Your task to perform on an android device: Add "duracell triple a" to the cart on newegg.com Image 0: 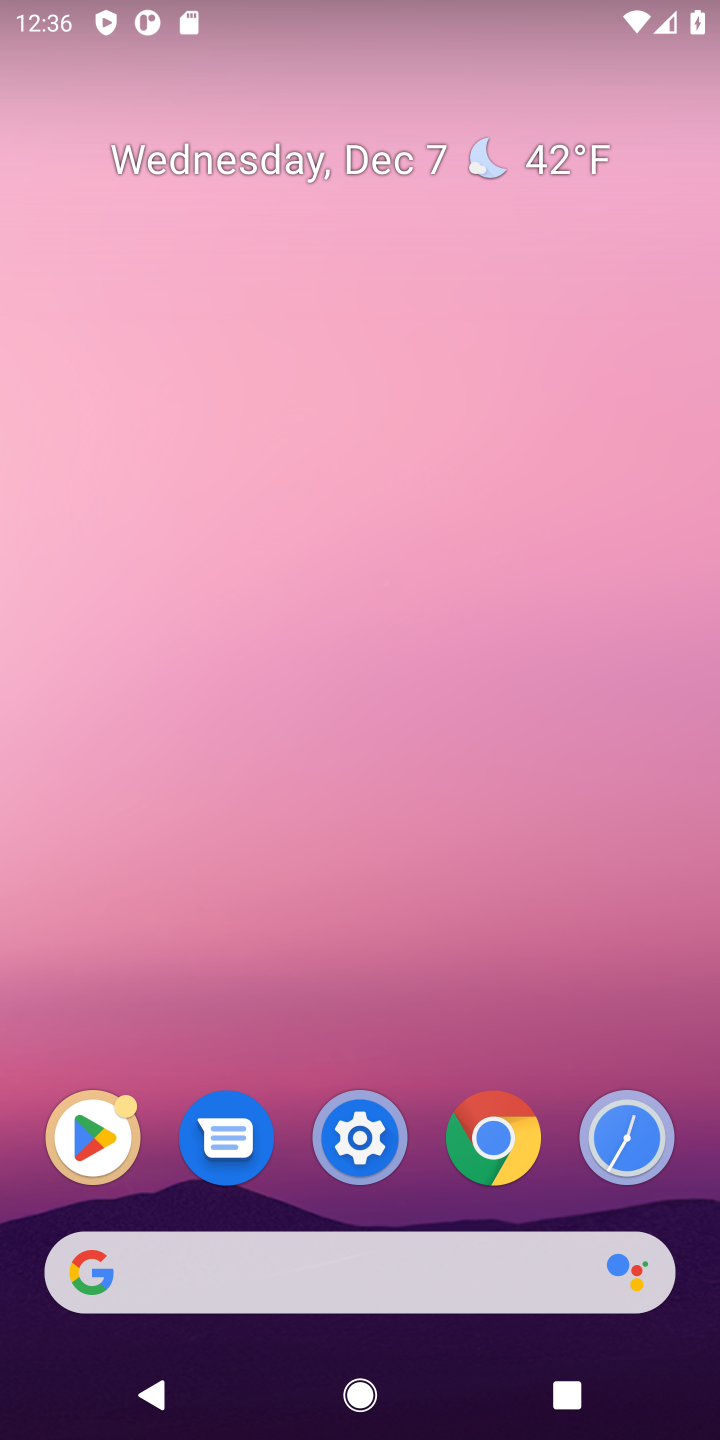
Step 0: click (378, 1265)
Your task to perform on an android device: Add "duracell triple a" to the cart on newegg.com Image 1: 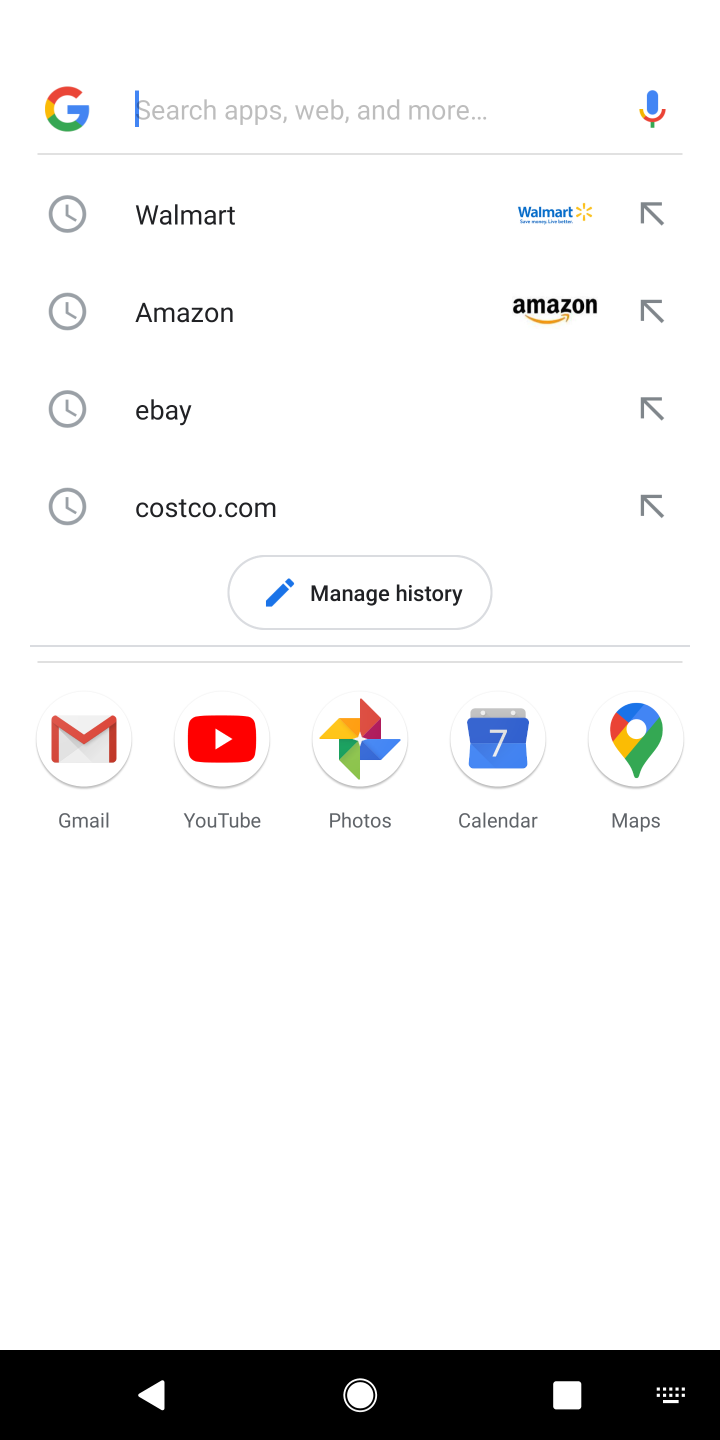
Step 1: type "newegg"
Your task to perform on an android device: Add "duracell triple a" to the cart on newegg.com Image 2: 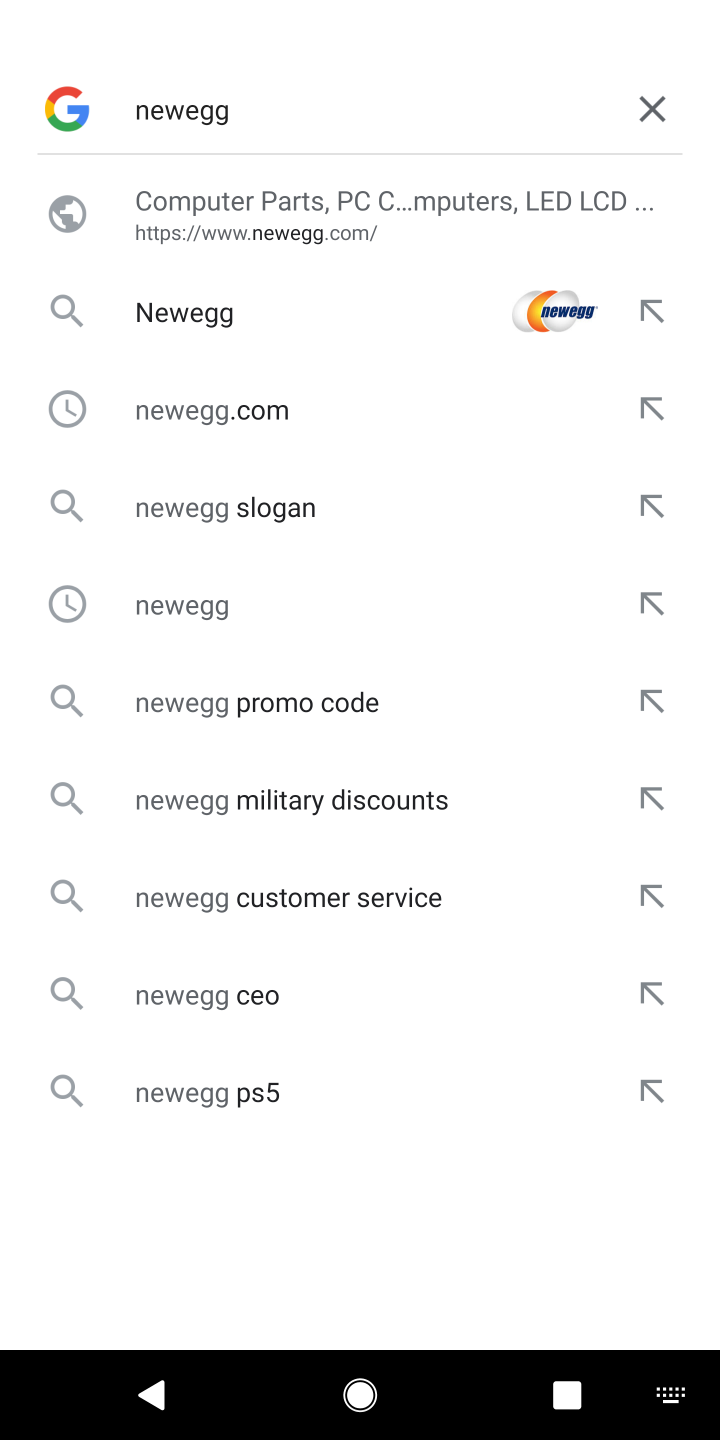
Step 2: click (250, 266)
Your task to perform on an android device: Add "duracell triple a" to the cart on newegg.com Image 3: 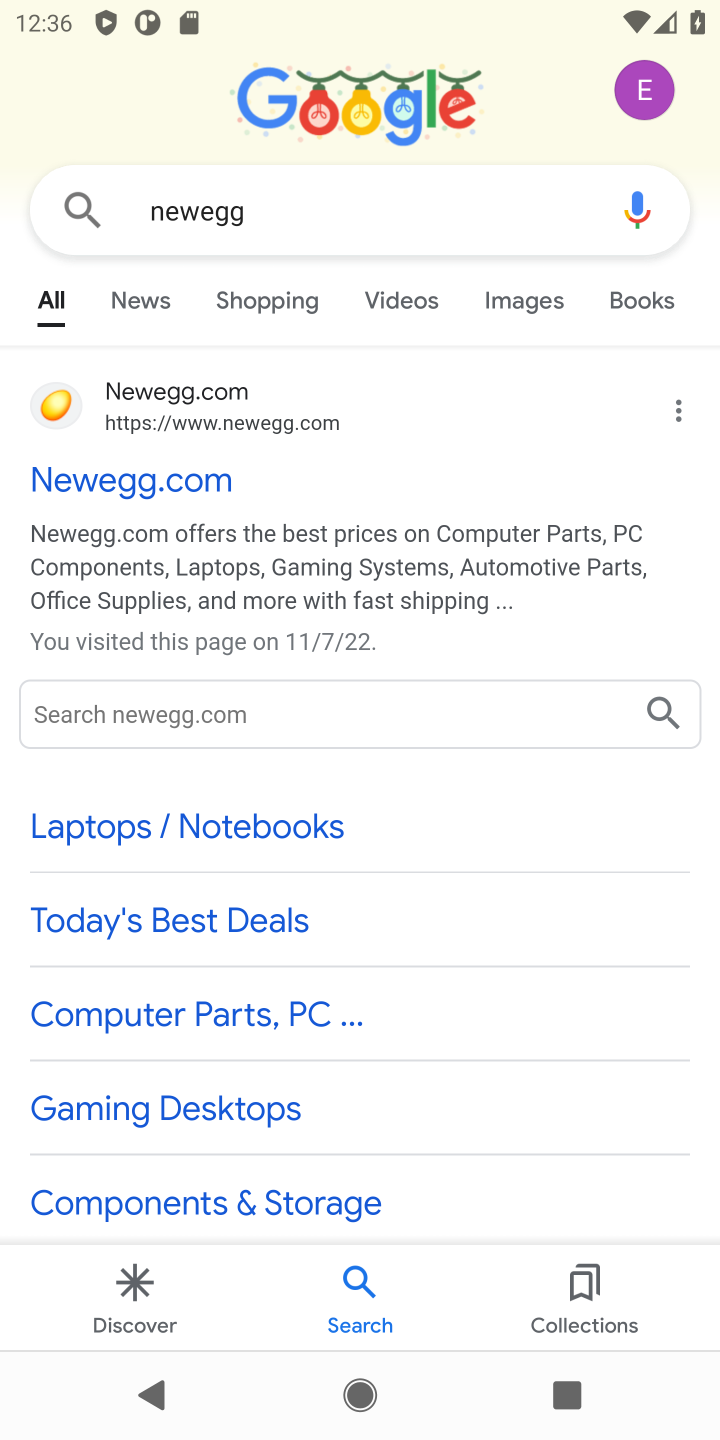
Step 3: click (141, 499)
Your task to perform on an android device: Add "duracell triple a" to the cart on newegg.com Image 4: 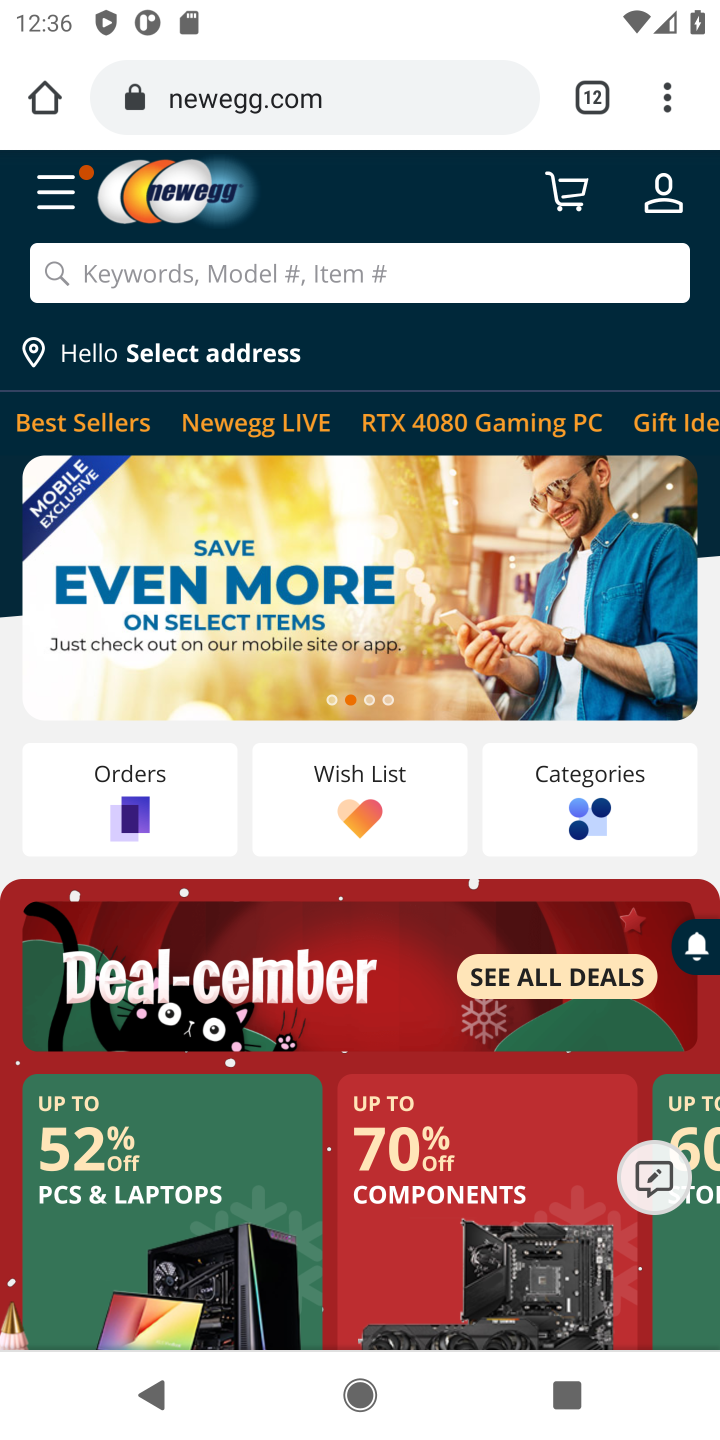
Step 4: click (197, 276)
Your task to perform on an android device: Add "duracell triple a" to the cart on newegg.com Image 5: 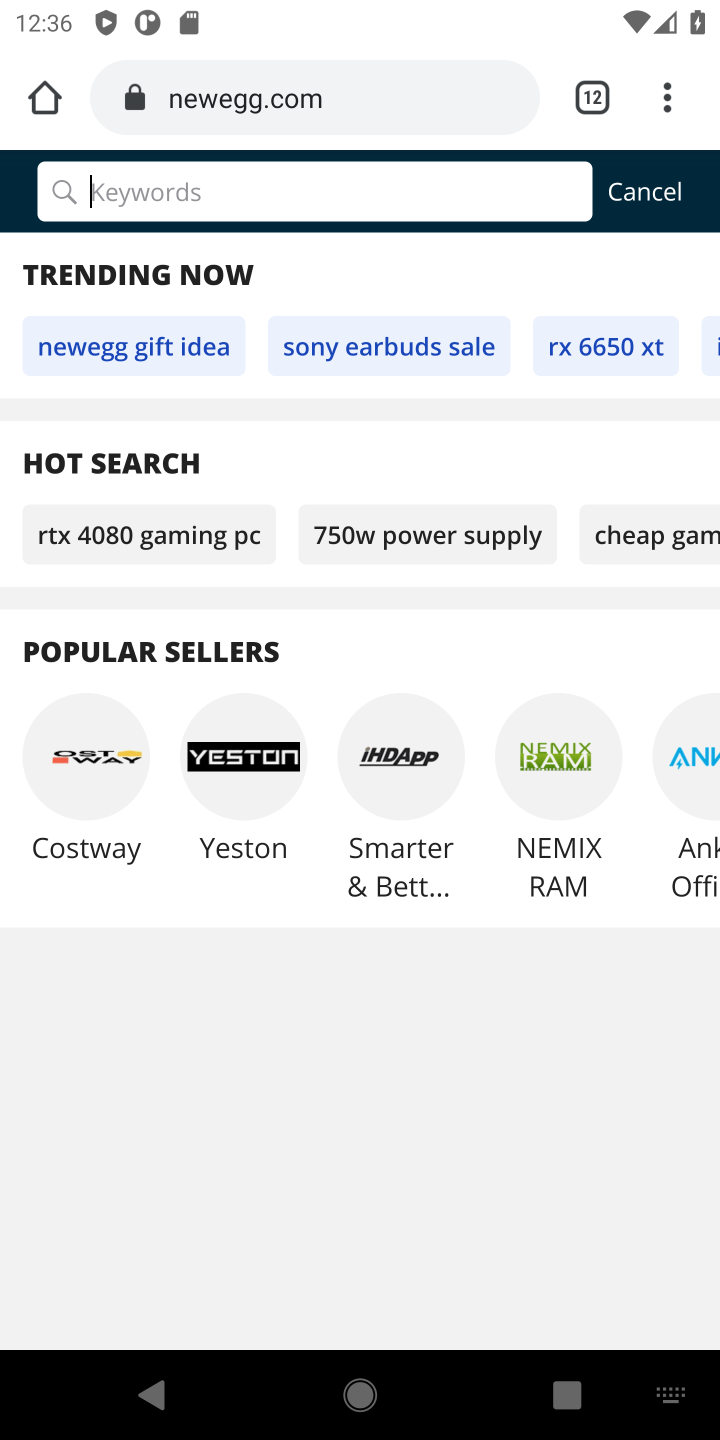
Step 5: type "duracell"
Your task to perform on an android device: Add "duracell triple a" to the cart on newegg.com Image 6: 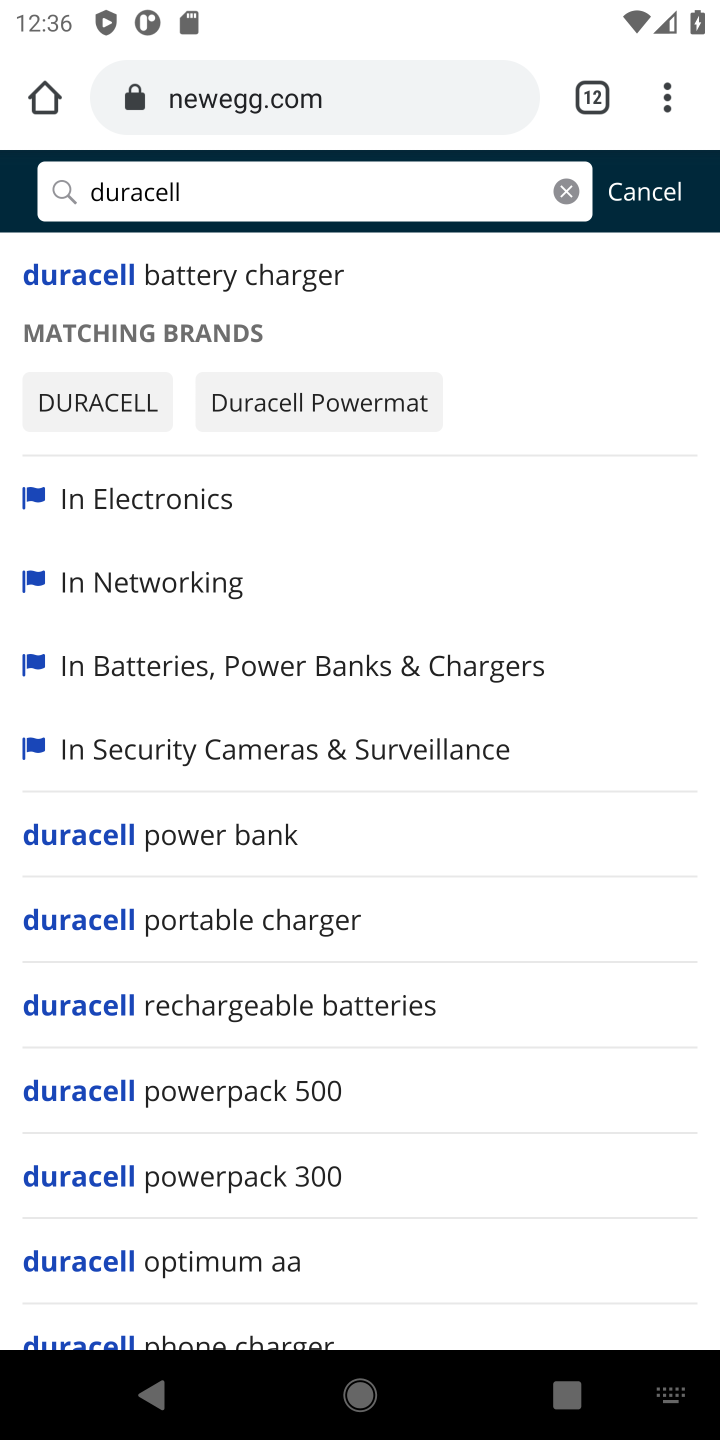
Step 6: click (305, 284)
Your task to perform on an android device: Add "duracell triple a" to the cart on newegg.com Image 7: 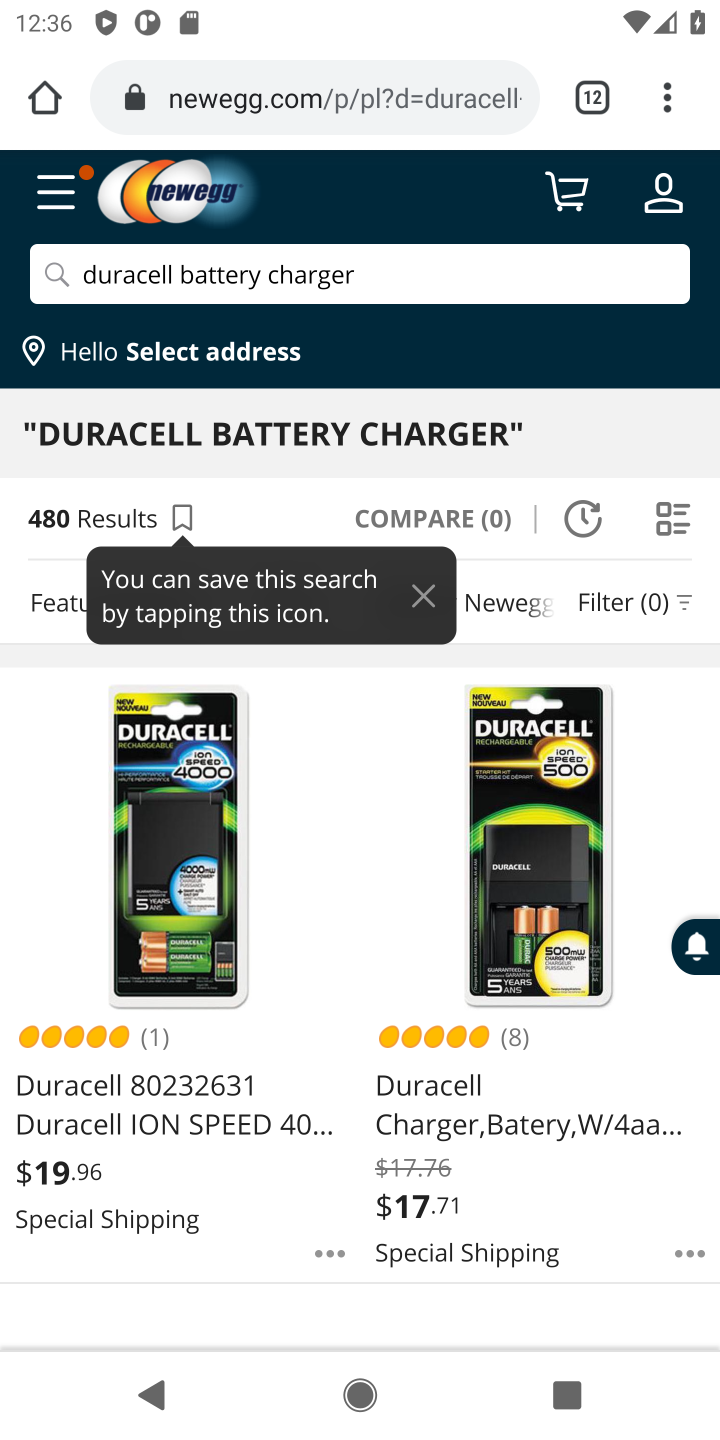
Step 7: task complete